Your task to perform on an android device: Go to Maps Image 0: 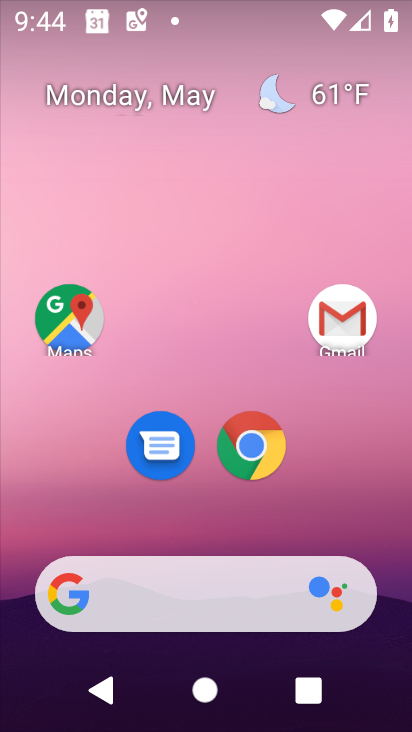
Step 0: drag from (362, 493) to (359, 92)
Your task to perform on an android device: Go to Maps Image 1: 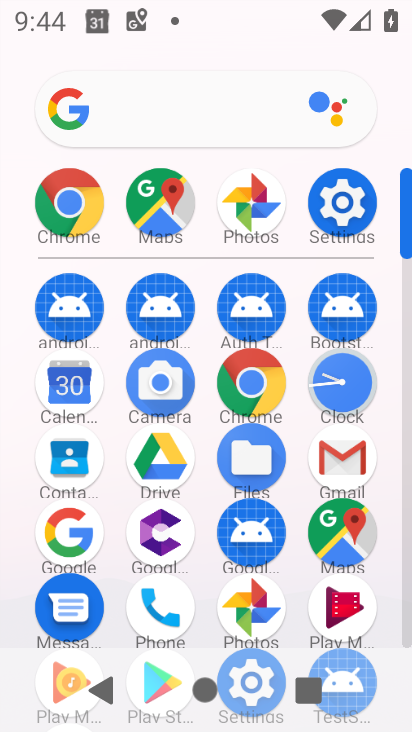
Step 1: click (353, 529)
Your task to perform on an android device: Go to Maps Image 2: 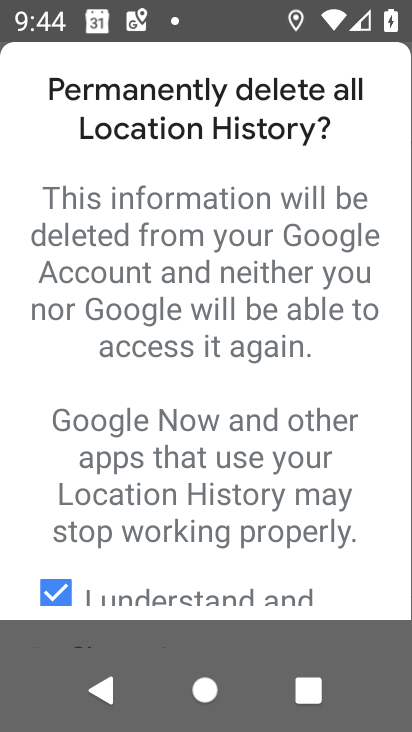
Step 2: task complete